Your task to perform on an android device: Open accessibility settings Image 0: 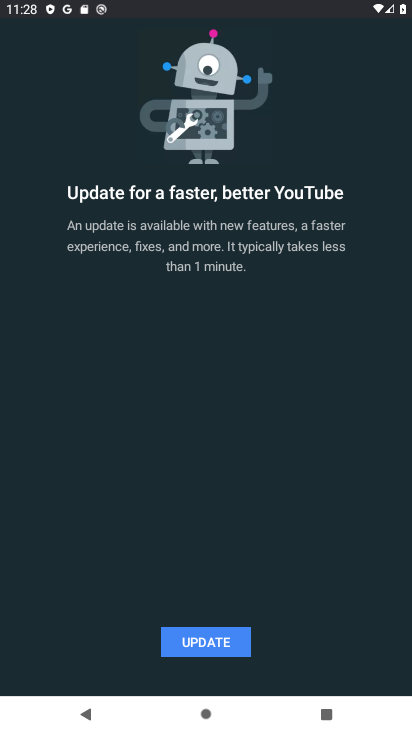
Step 0: press home button
Your task to perform on an android device: Open accessibility settings Image 1: 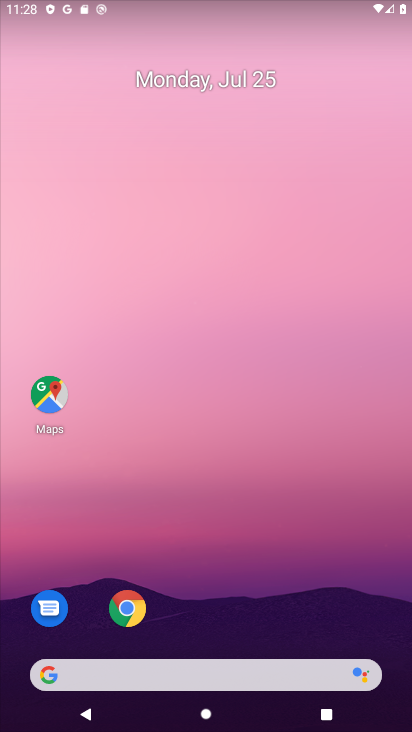
Step 1: drag from (224, 641) to (276, 61)
Your task to perform on an android device: Open accessibility settings Image 2: 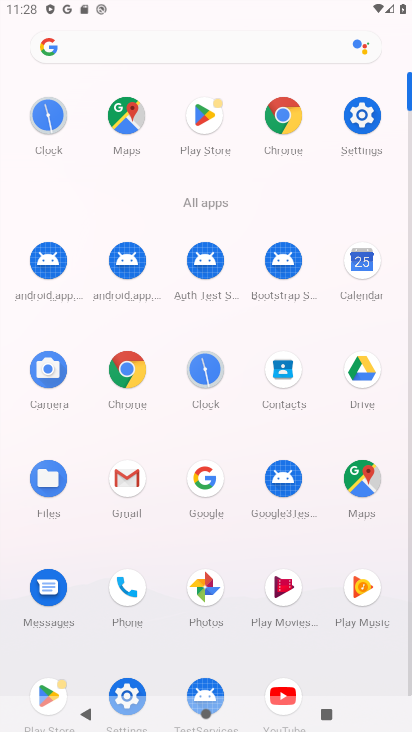
Step 2: click (354, 123)
Your task to perform on an android device: Open accessibility settings Image 3: 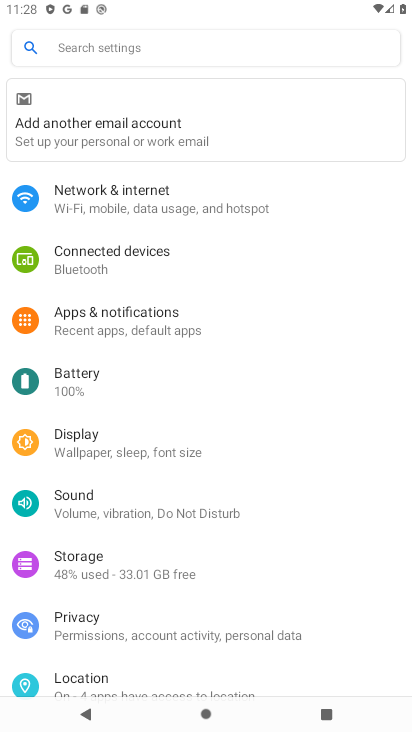
Step 3: drag from (121, 637) to (174, 145)
Your task to perform on an android device: Open accessibility settings Image 4: 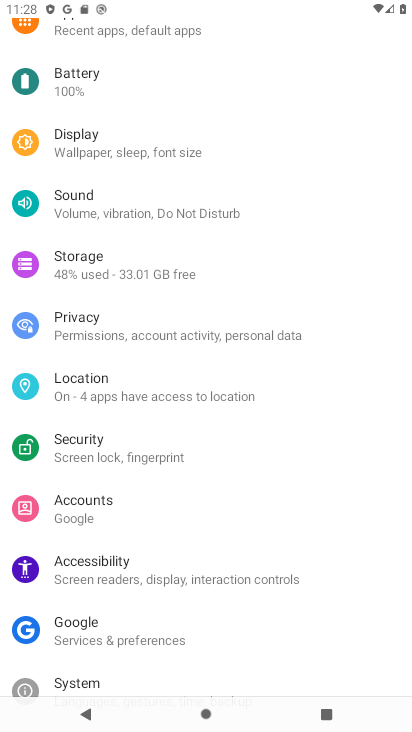
Step 4: drag from (100, 635) to (160, 205)
Your task to perform on an android device: Open accessibility settings Image 5: 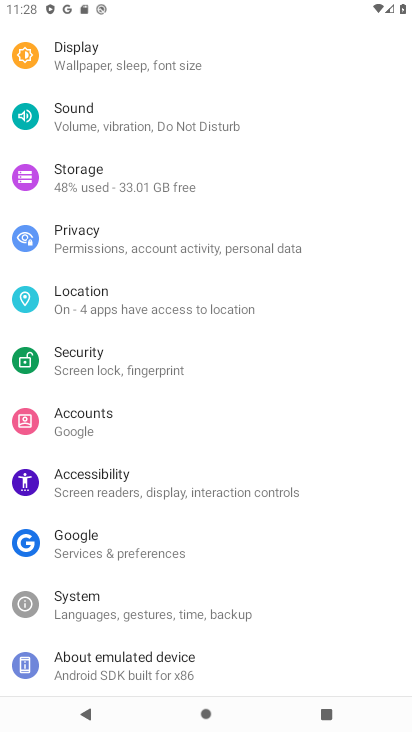
Step 5: click (125, 470)
Your task to perform on an android device: Open accessibility settings Image 6: 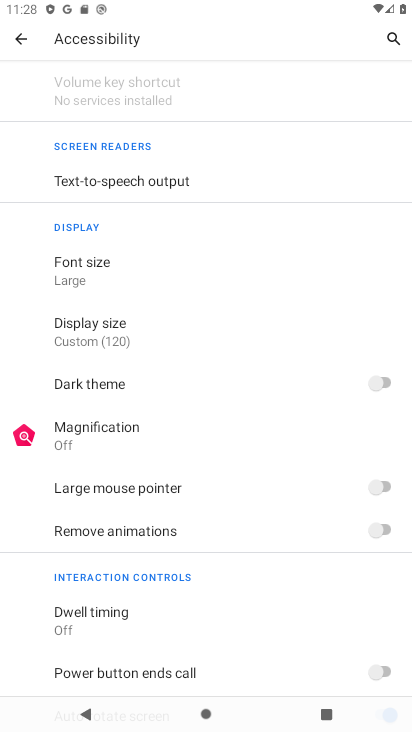
Step 6: task complete